Your task to perform on an android device: turn on notifications settings in the gmail app Image 0: 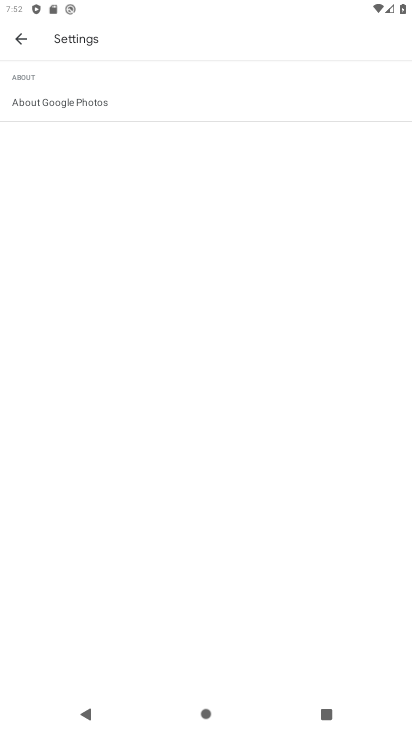
Step 0: press home button
Your task to perform on an android device: turn on notifications settings in the gmail app Image 1: 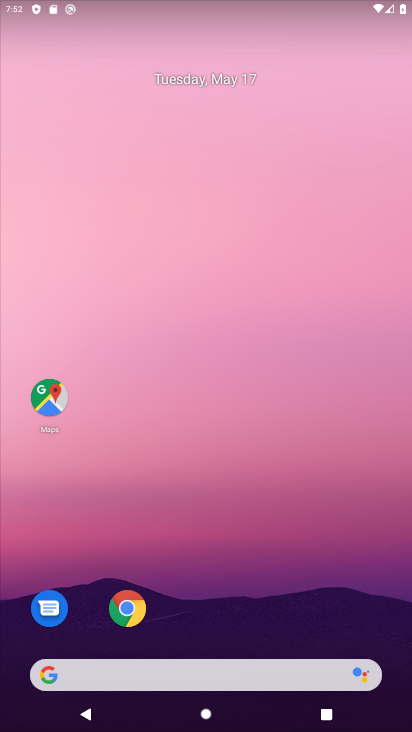
Step 1: drag from (356, 602) to (297, 137)
Your task to perform on an android device: turn on notifications settings in the gmail app Image 2: 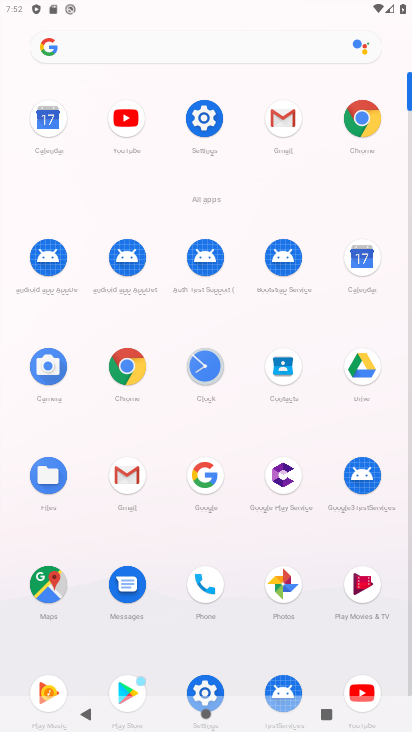
Step 2: click (118, 478)
Your task to perform on an android device: turn on notifications settings in the gmail app Image 3: 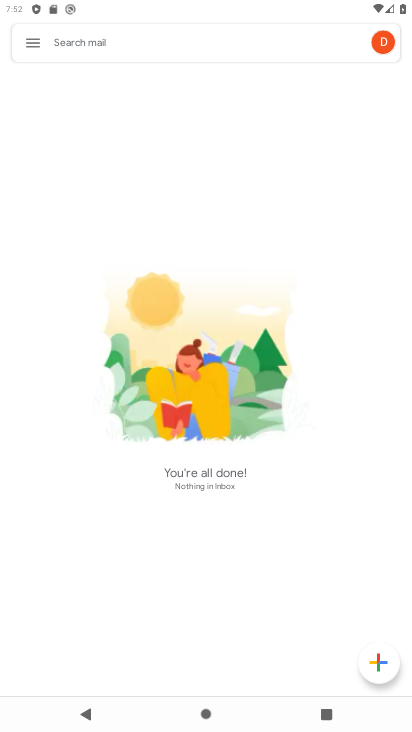
Step 3: click (32, 34)
Your task to perform on an android device: turn on notifications settings in the gmail app Image 4: 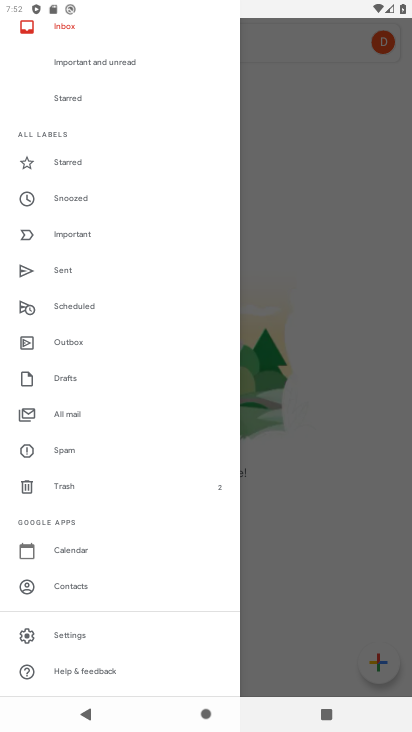
Step 4: click (122, 631)
Your task to perform on an android device: turn on notifications settings in the gmail app Image 5: 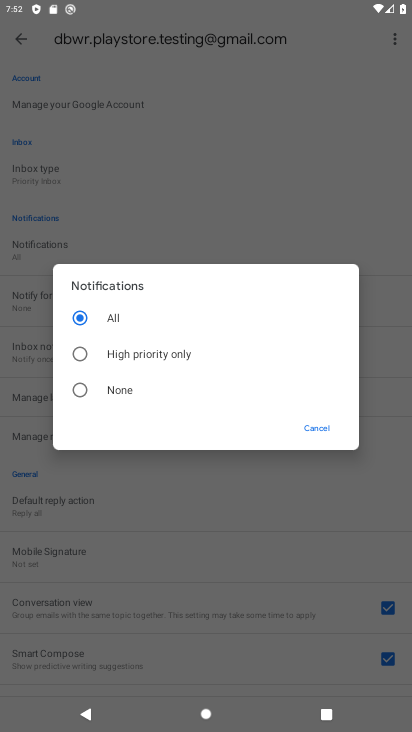
Step 5: click (315, 420)
Your task to perform on an android device: turn on notifications settings in the gmail app Image 6: 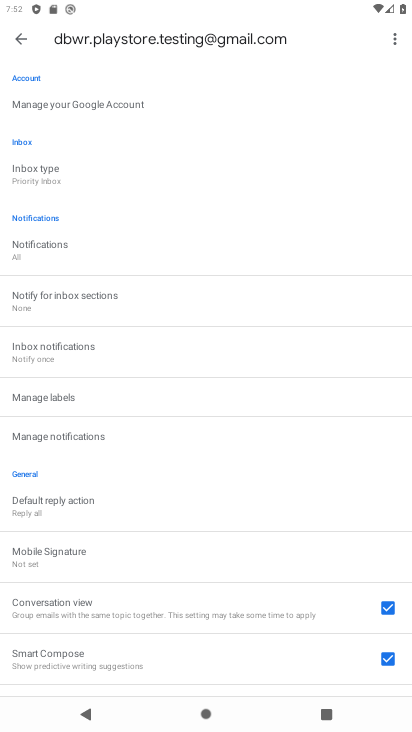
Step 6: click (77, 255)
Your task to perform on an android device: turn on notifications settings in the gmail app Image 7: 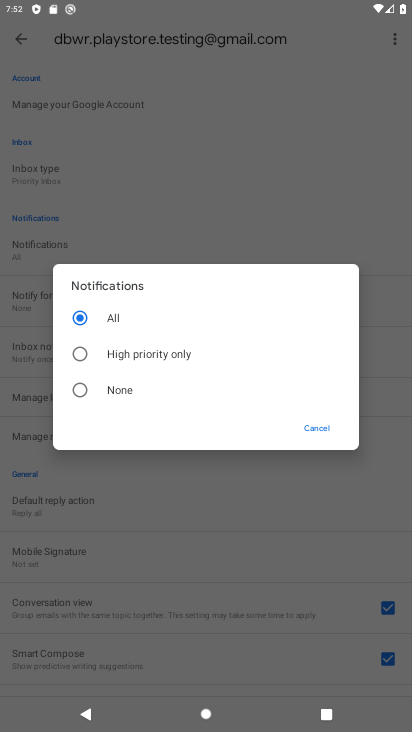
Step 7: task complete